Your task to perform on an android device: Search for Mexican restaurants on Maps Image 0: 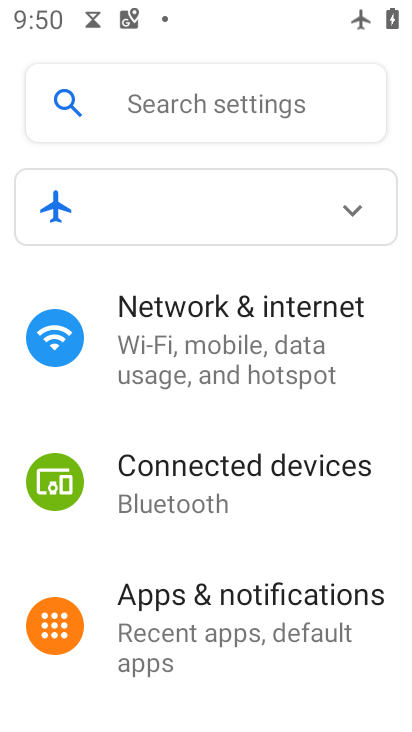
Step 0: press home button
Your task to perform on an android device: Search for Mexican restaurants on Maps Image 1: 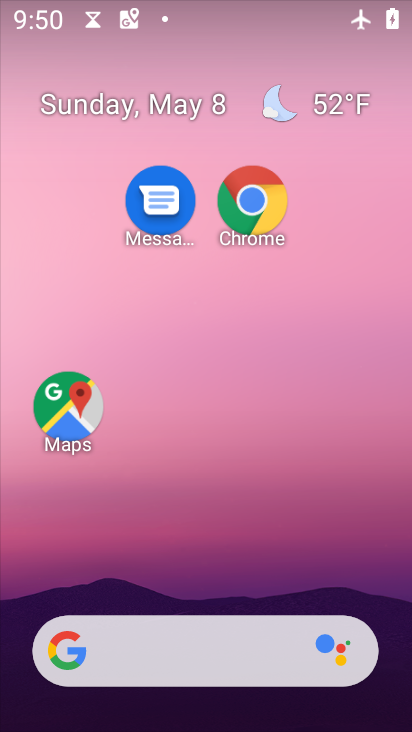
Step 1: click (83, 408)
Your task to perform on an android device: Search for Mexican restaurants on Maps Image 2: 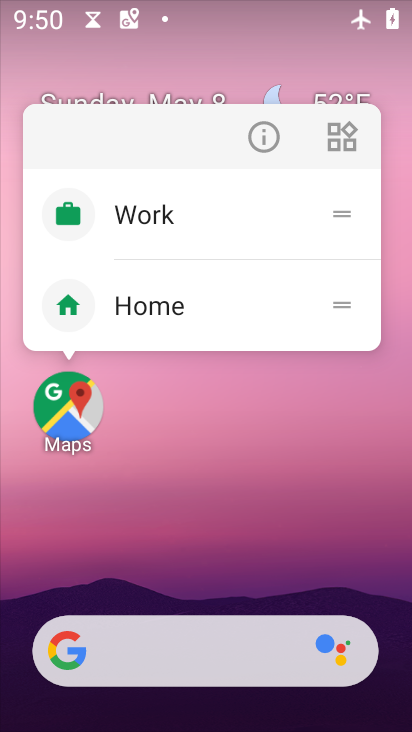
Step 2: click (75, 408)
Your task to perform on an android device: Search for Mexican restaurants on Maps Image 3: 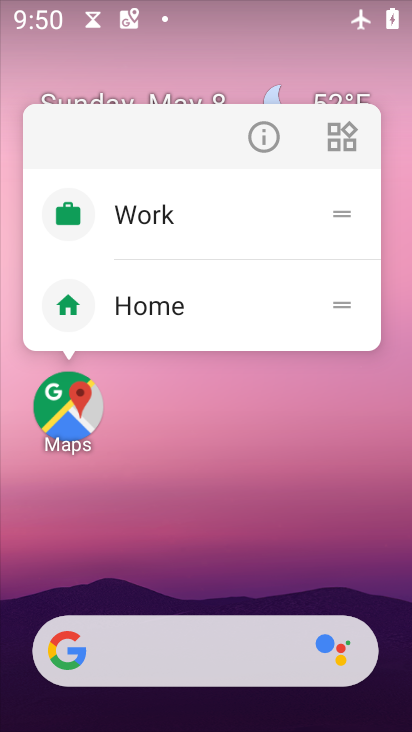
Step 3: click (66, 425)
Your task to perform on an android device: Search for Mexican restaurants on Maps Image 4: 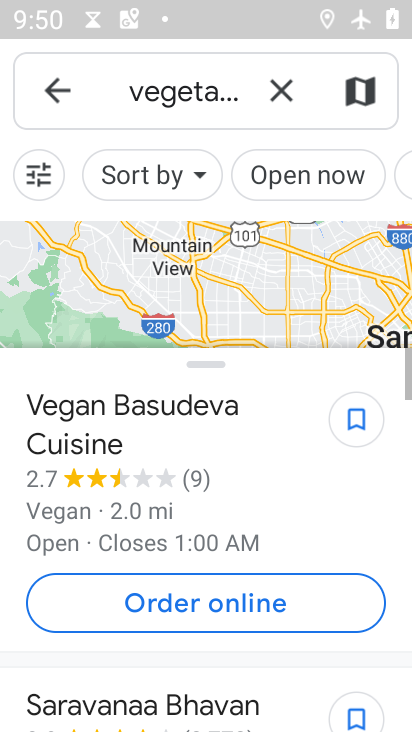
Step 4: click (274, 95)
Your task to perform on an android device: Search for Mexican restaurants on Maps Image 5: 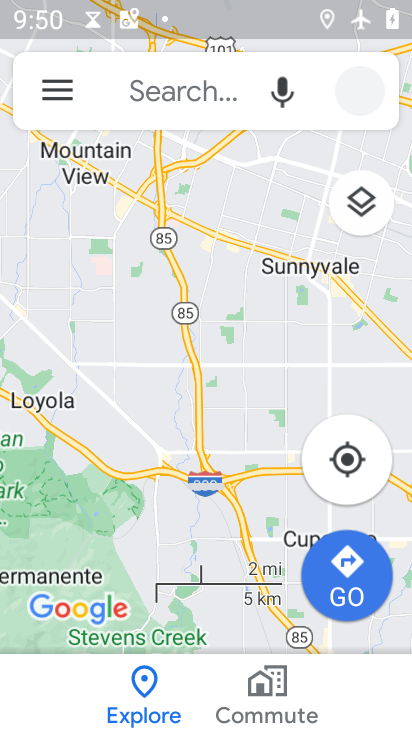
Step 5: click (215, 105)
Your task to perform on an android device: Search for Mexican restaurants on Maps Image 6: 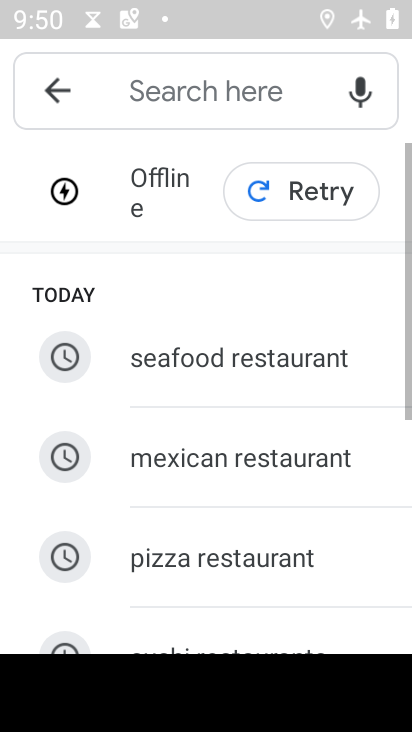
Step 6: click (221, 495)
Your task to perform on an android device: Search for Mexican restaurants on Maps Image 7: 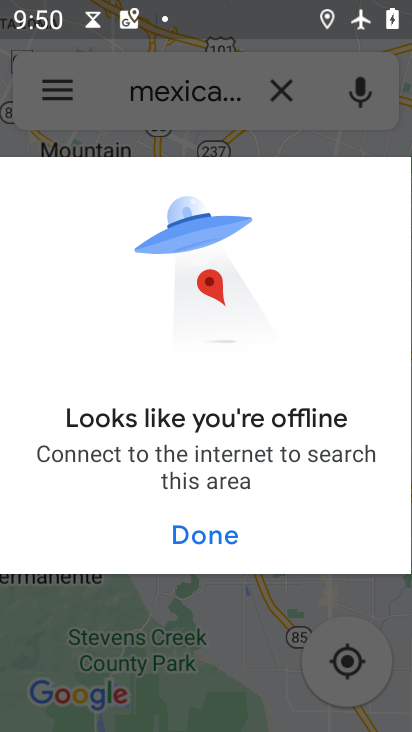
Step 7: task complete